Your task to perform on an android device: find snoozed emails in the gmail app Image 0: 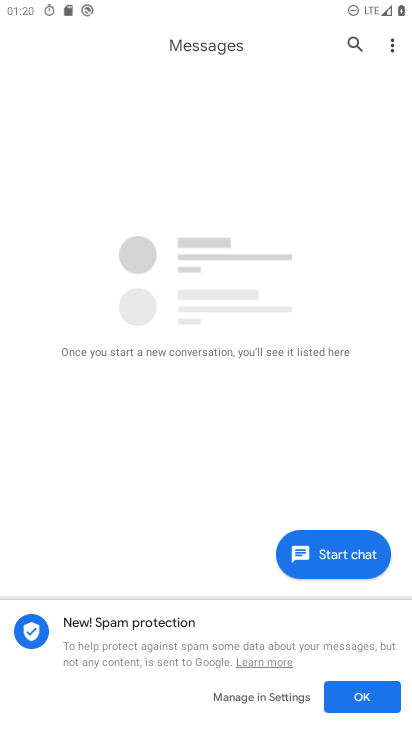
Step 0: press home button
Your task to perform on an android device: find snoozed emails in the gmail app Image 1: 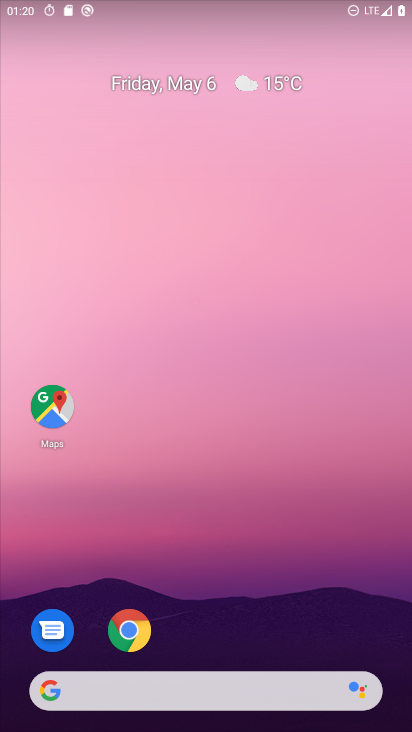
Step 1: drag from (286, 587) to (250, 140)
Your task to perform on an android device: find snoozed emails in the gmail app Image 2: 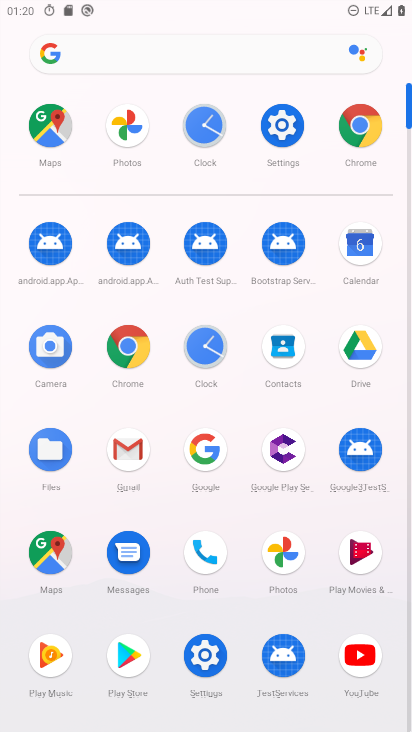
Step 2: click (129, 451)
Your task to perform on an android device: find snoozed emails in the gmail app Image 3: 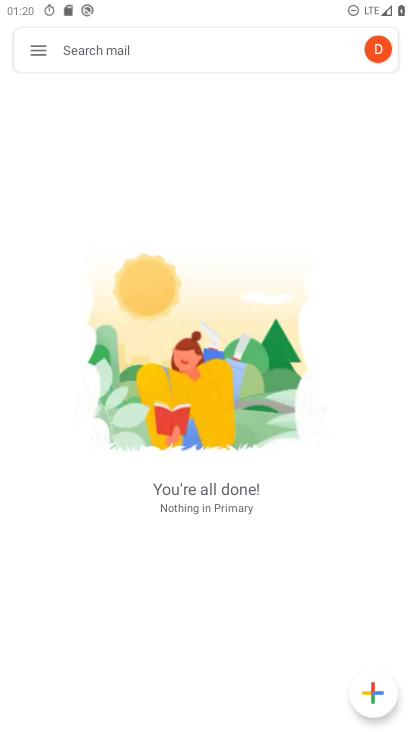
Step 3: click (40, 46)
Your task to perform on an android device: find snoozed emails in the gmail app Image 4: 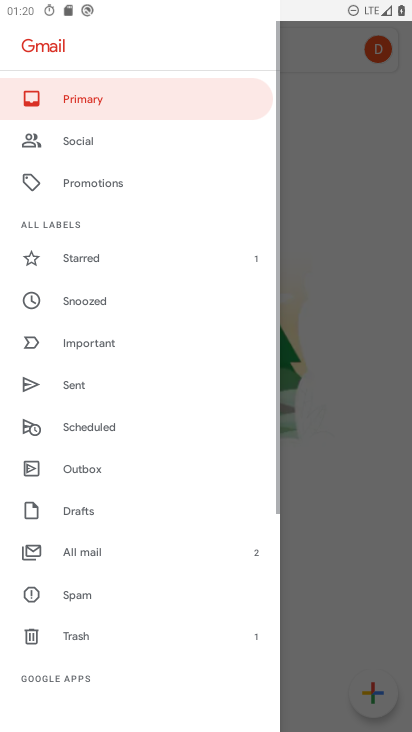
Step 4: click (104, 259)
Your task to perform on an android device: find snoozed emails in the gmail app Image 5: 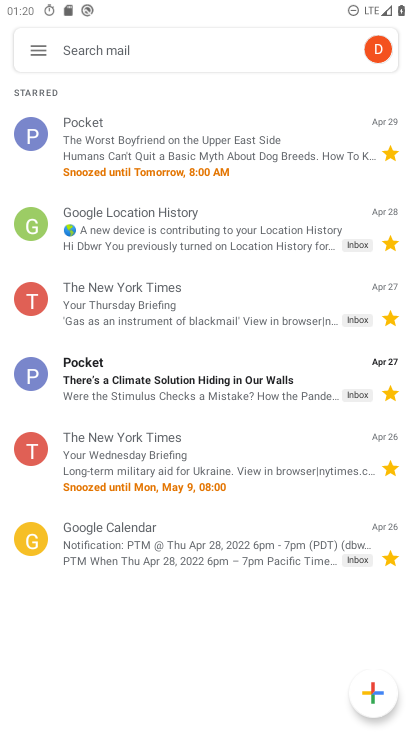
Step 5: task complete